Your task to perform on an android device: Show me the alarms in the clock app Image 0: 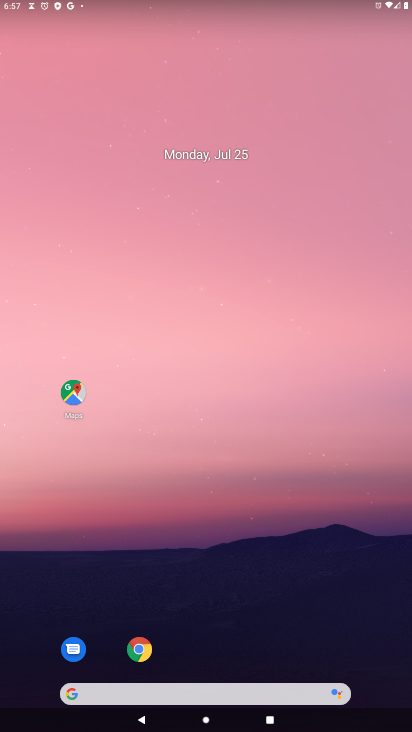
Step 0: drag from (246, 707) to (223, 165)
Your task to perform on an android device: Show me the alarms in the clock app Image 1: 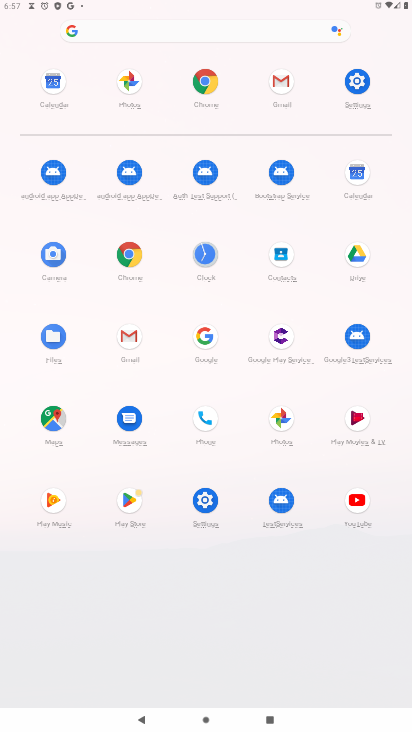
Step 1: click (215, 253)
Your task to perform on an android device: Show me the alarms in the clock app Image 2: 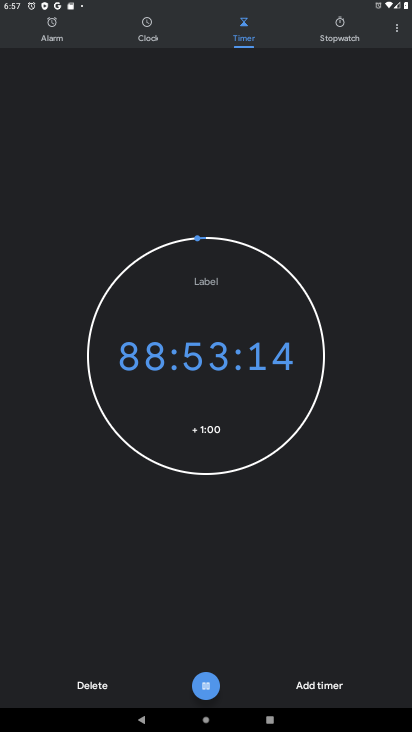
Step 2: click (64, 41)
Your task to perform on an android device: Show me the alarms in the clock app Image 3: 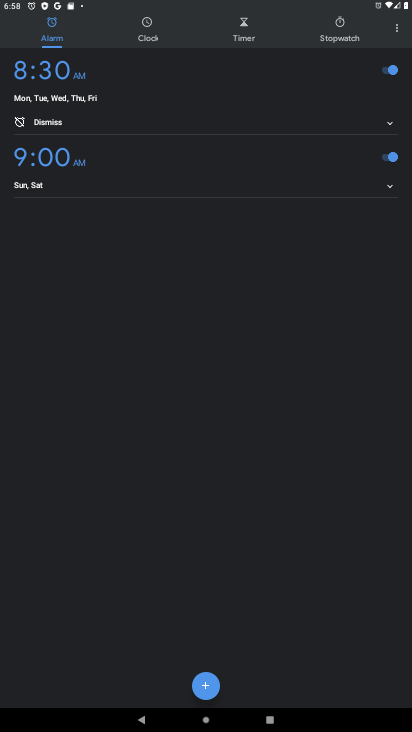
Step 3: task complete